Your task to perform on an android device: uninstall "DuckDuckGo Privacy Browser" Image 0: 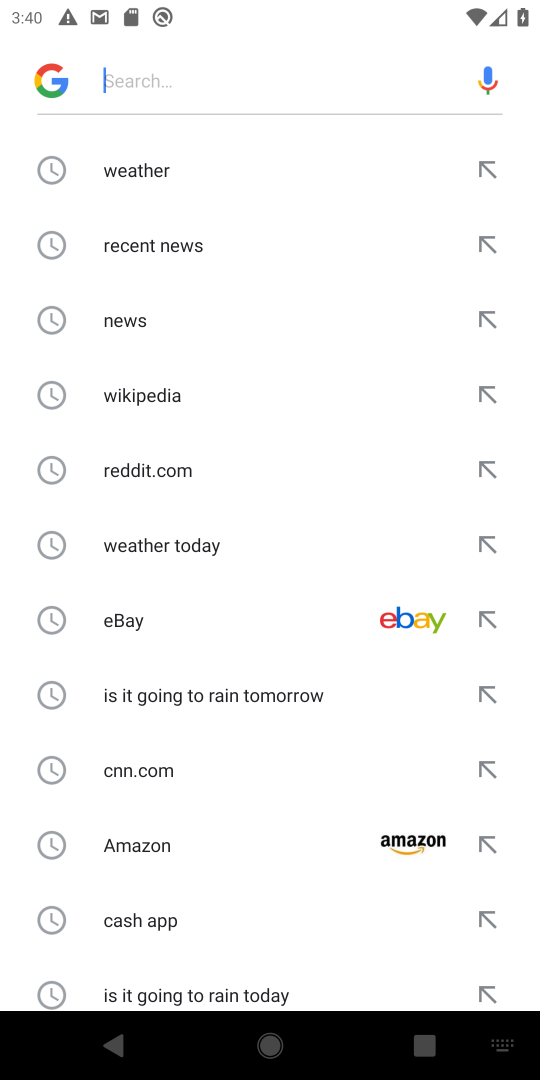
Step 0: press home button
Your task to perform on an android device: uninstall "DuckDuckGo Privacy Browser" Image 1: 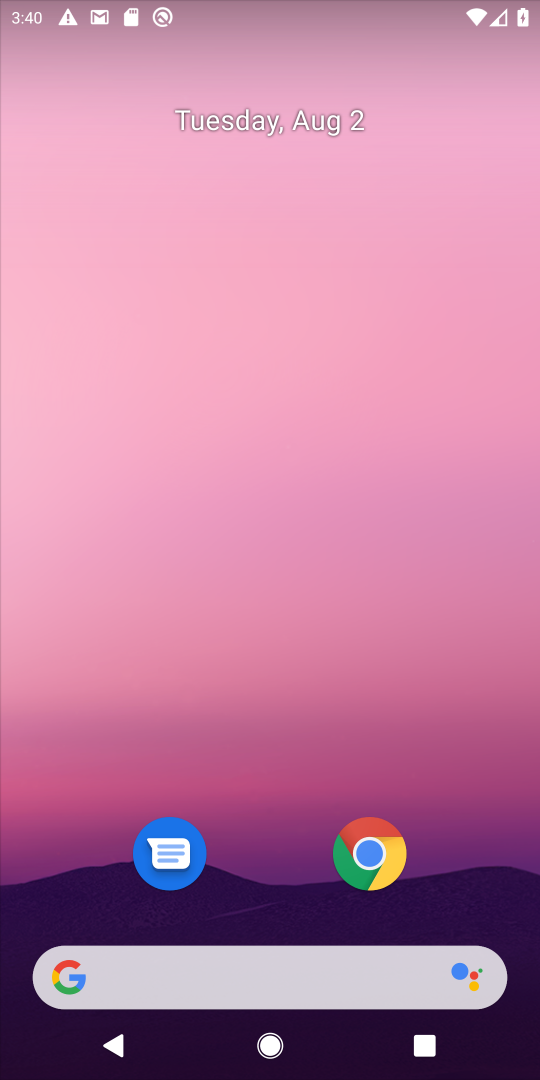
Step 1: drag from (320, 1051) to (314, 772)
Your task to perform on an android device: uninstall "DuckDuckGo Privacy Browser" Image 2: 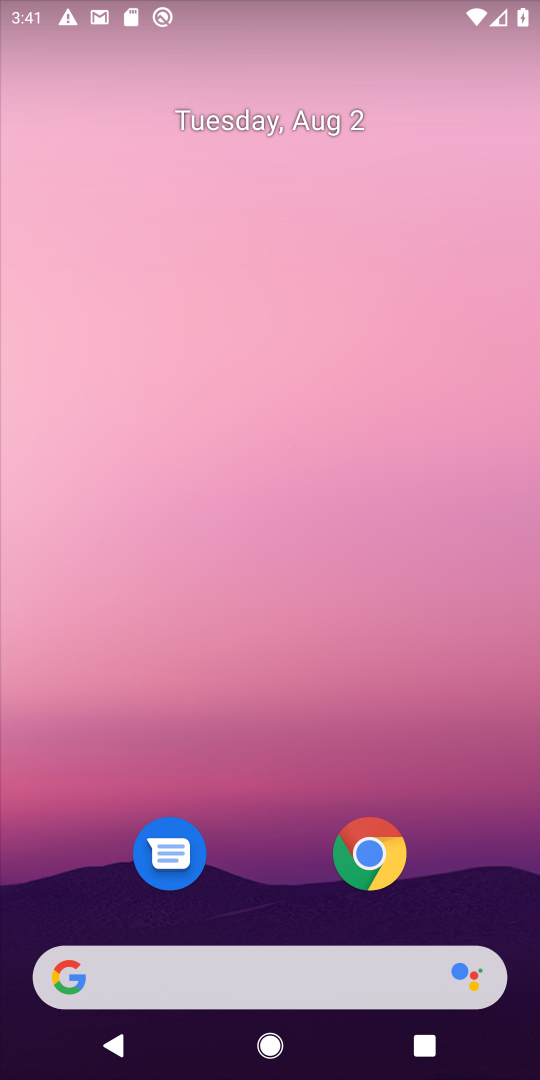
Step 2: drag from (321, 1060) to (314, 189)
Your task to perform on an android device: uninstall "DuckDuckGo Privacy Browser" Image 3: 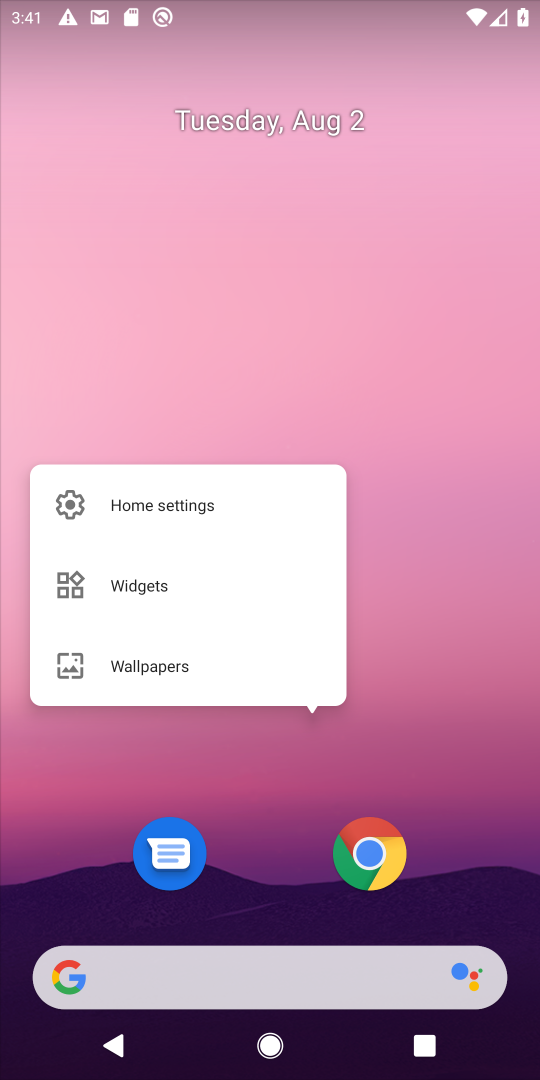
Step 3: click (427, 514)
Your task to perform on an android device: uninstall "DuckDuckGo Privacy Browser" Image 4: 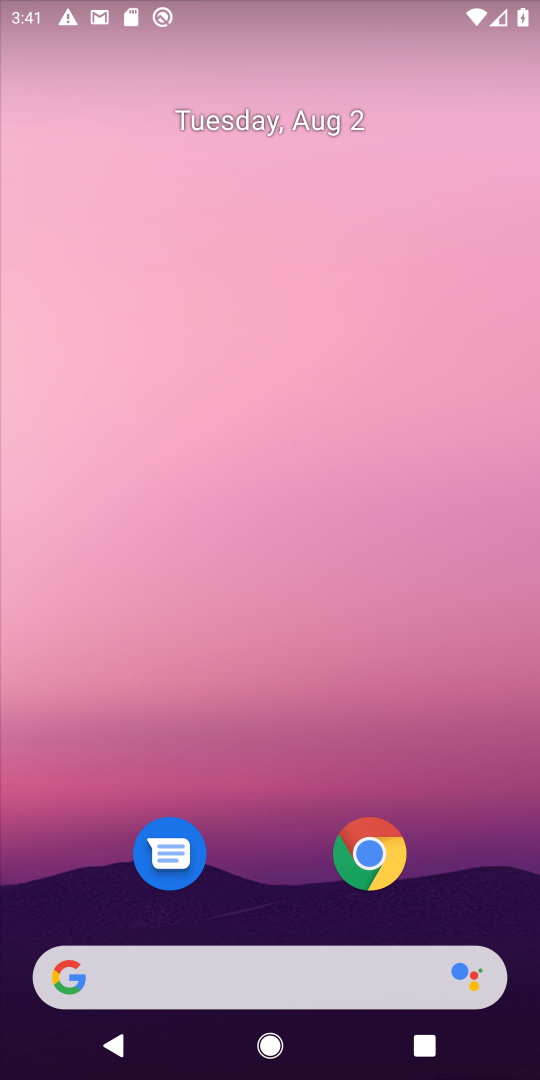
Step 4: drag from (294, 1012) to (293, 76)
Your task to perform on an android device: uninstall "DuckDuckGo Privacy Browser" Image 5: 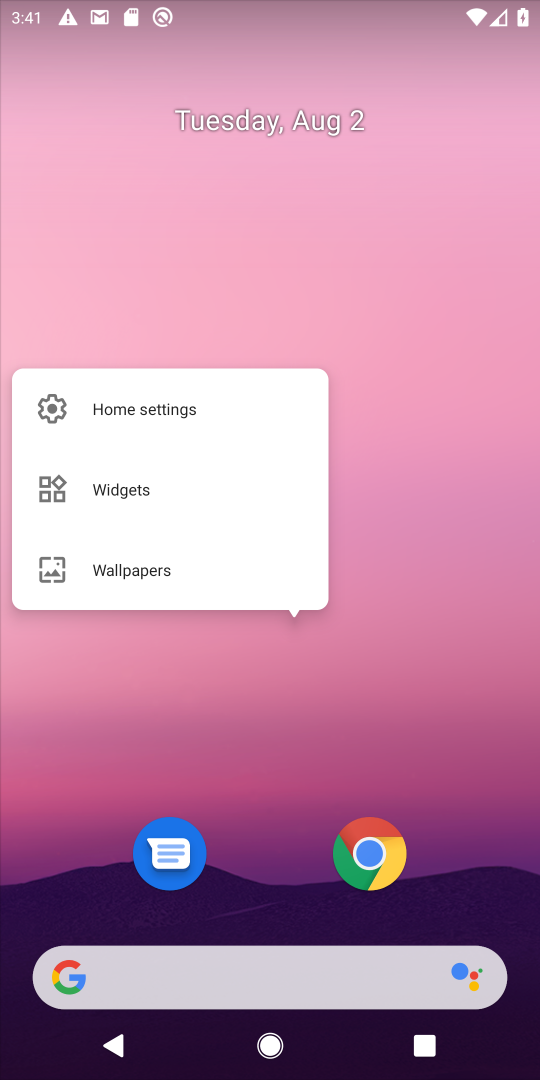
Step 5: click (328, 675)
Your task to perform on an android device: uninstall "DuckDuckGo Privacy Browser" Image 6: 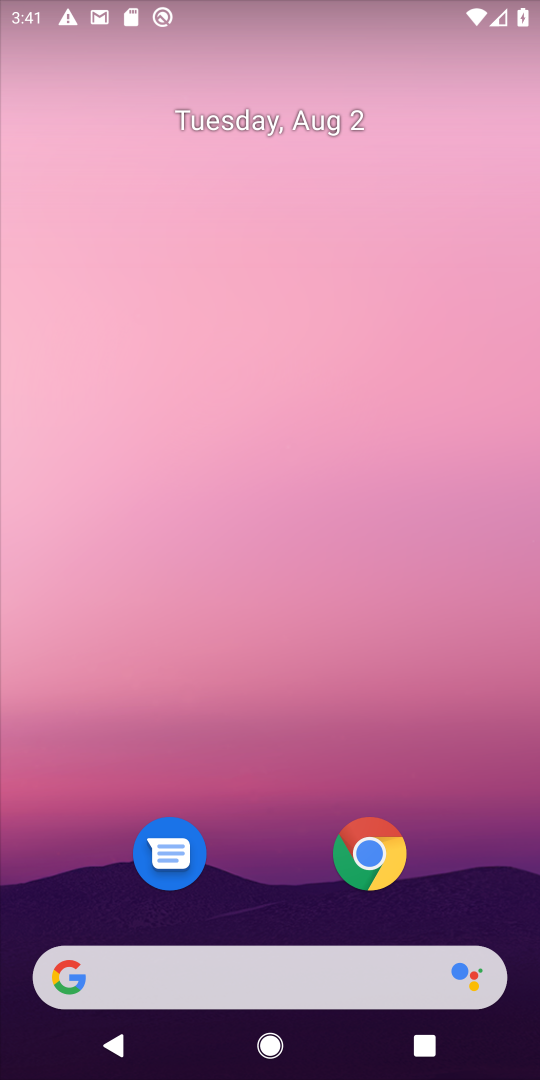
Step 6: drag from (297, 1067) to (300, 319)
Your task to perform on an android device: uninstall "DuckDuckGo Privacy Browser" Image 7: 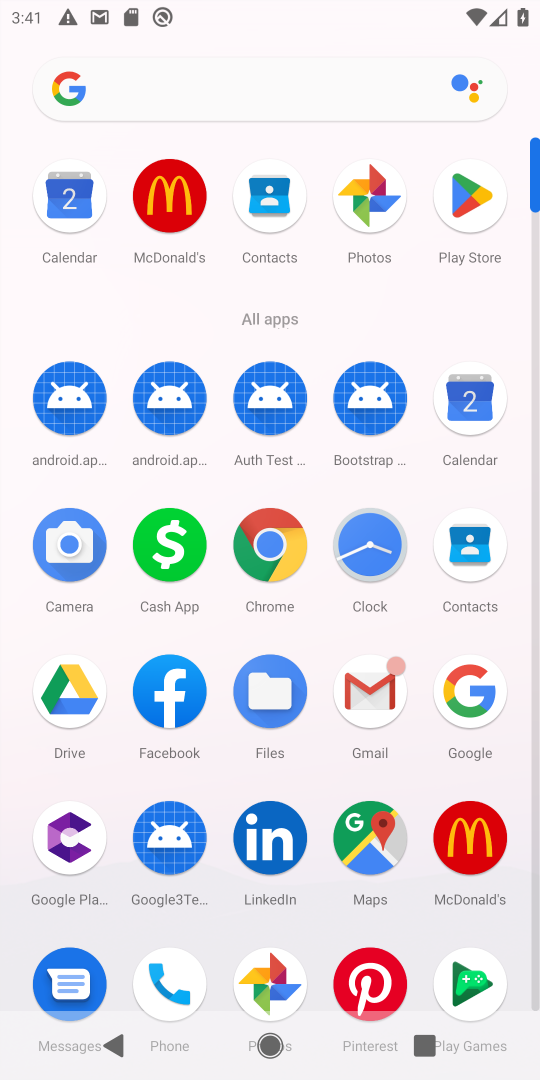
Step 7: click (471, 196)
Your task to perform on an android device: uninstall "DuckDuckGo Privacy Browser" Image 8: 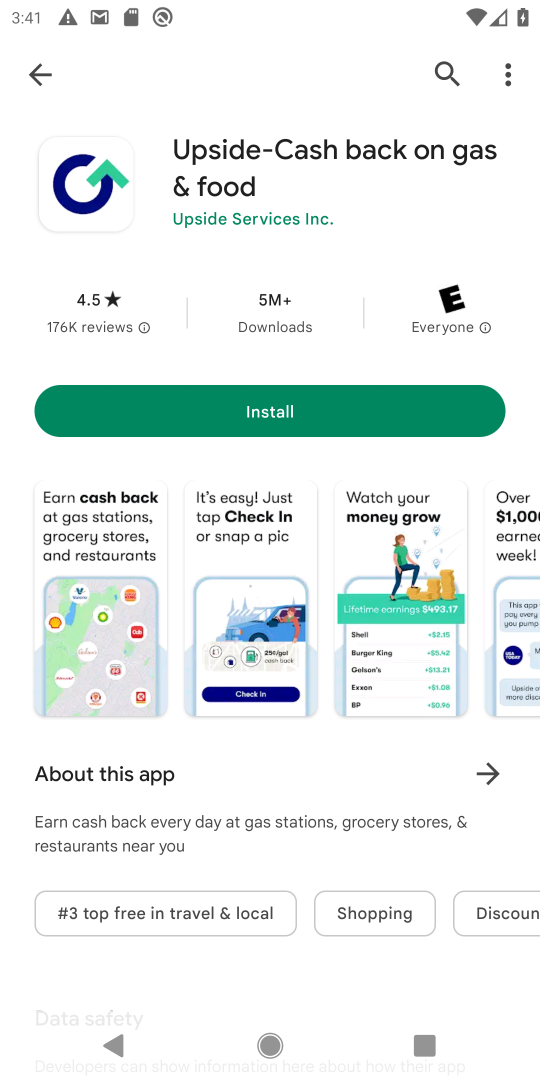
Step 8: click (444, 64)
Your task to perform on an android device: uninstall "DuckDuckGo Privacy Browser" Image 9: 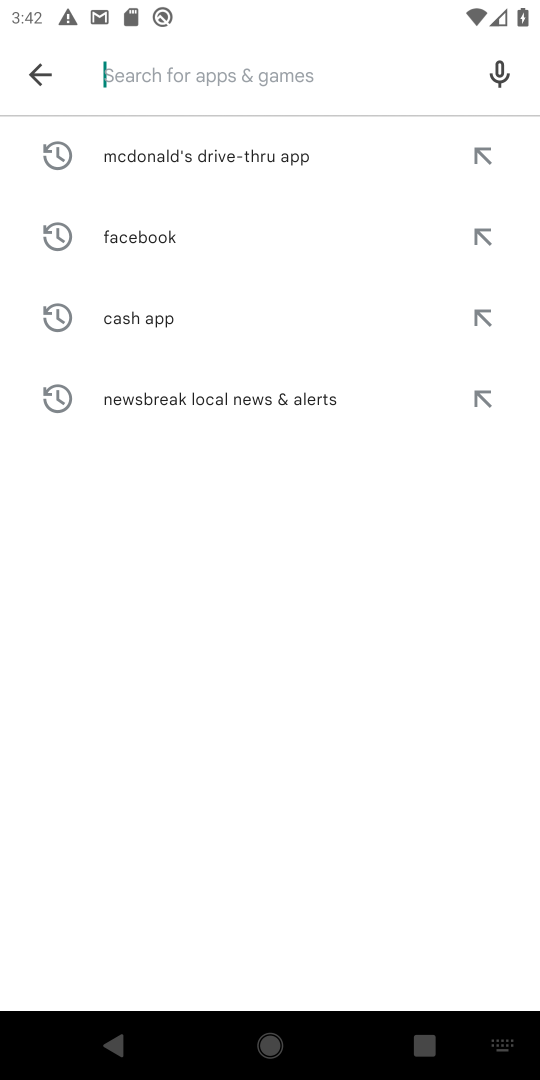
Step 9: type "DuckDuckGo Privacy Browser"
Your task to perform on an android device: uninstall "DuckDuckGo Privacy Browser" Image 10: 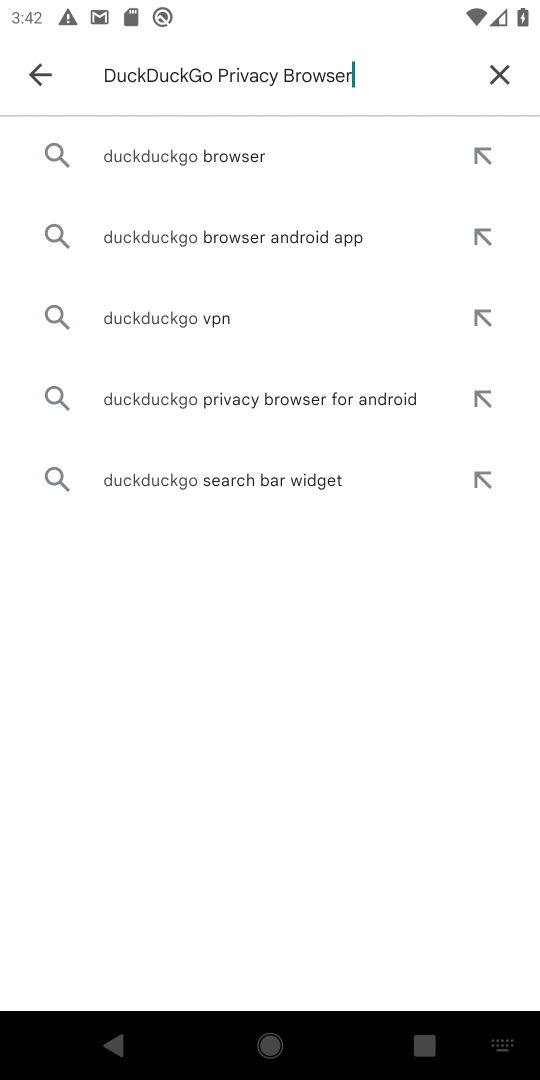
Step 10: type ""
Your task to perform on an android device: uninstall "DuckDuckGo Privacy Browser" Image 11: 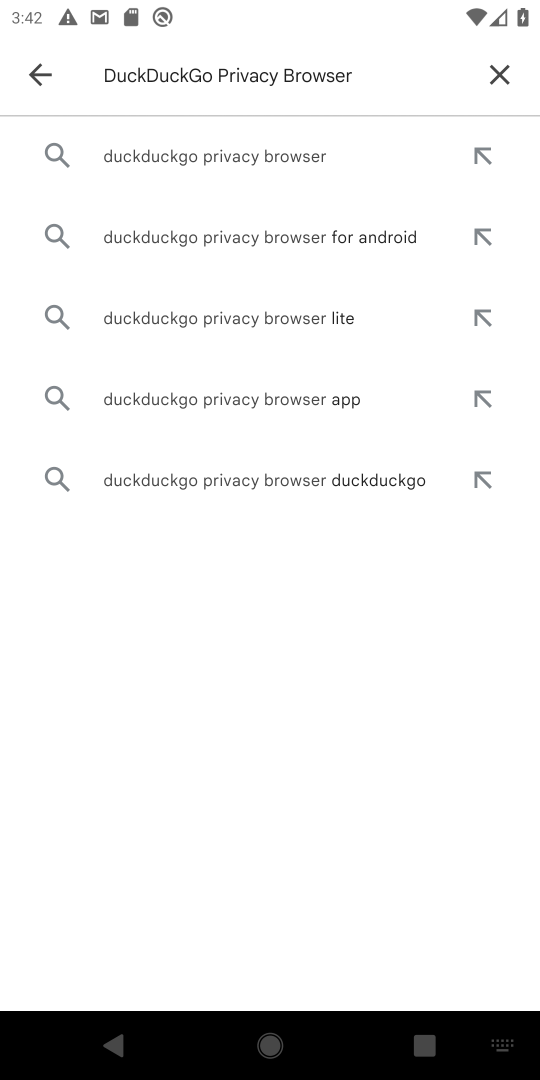
Step 11: click (240, 156)
Your task to perform on an android device: uninstall "DuckDuckGo Privacy Browser" Image 12: 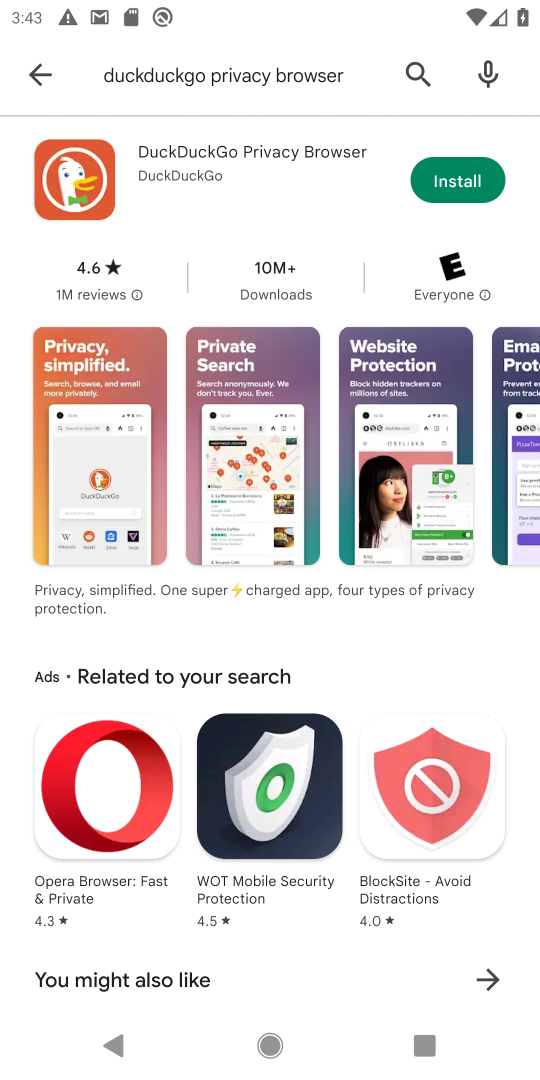
Step 12: click (251, 148)
Your task to perform on an android device: uninstall "DuckDuckGo Privacy Browser" Image 13: 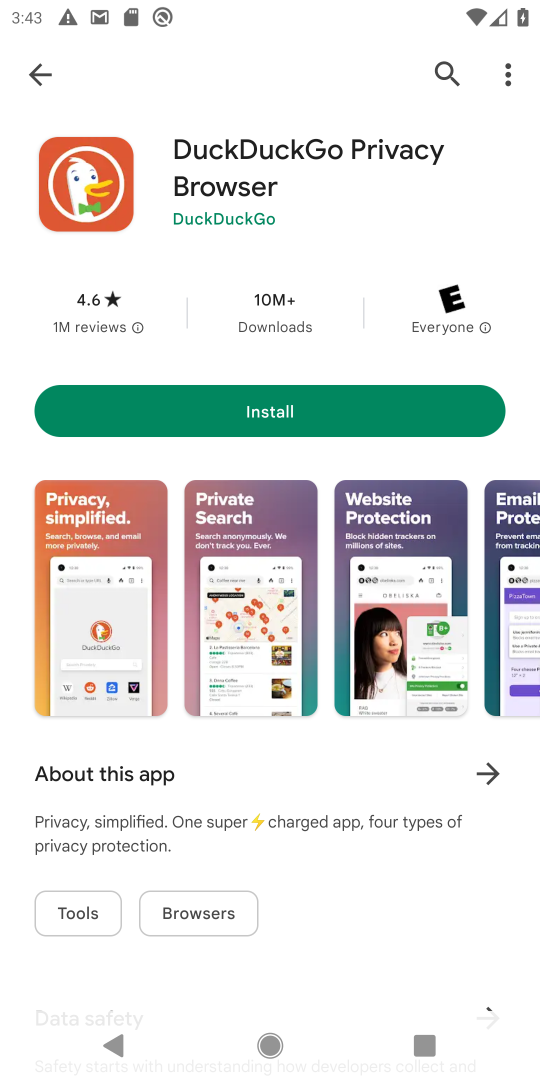
Step 13: task complete